Your task to perform on an android device: Find coffee shops on Maps Image 0: 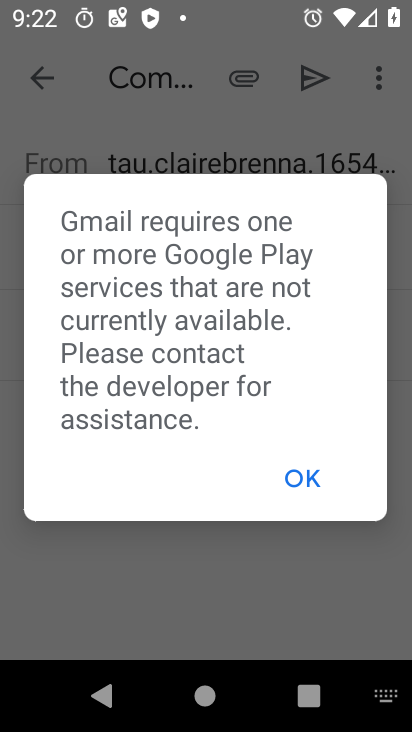
Step 0: press home button
Your task to perform on an android device: Find coffee shops on Maps Image 1: 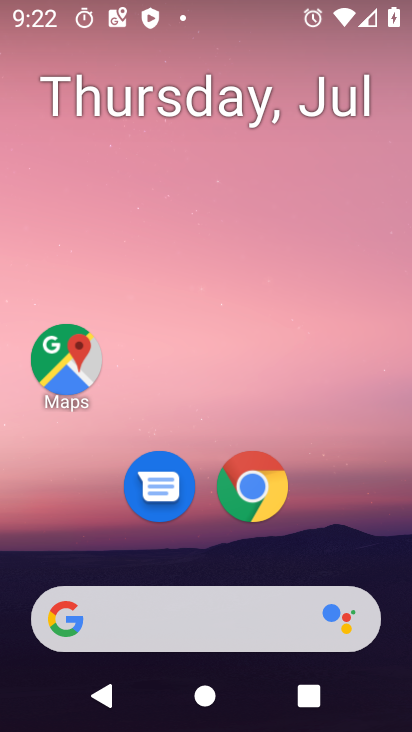
Step 1: click (76, 374)
Your task to perform on an android device: Find coffee shops on Maps Image 2: 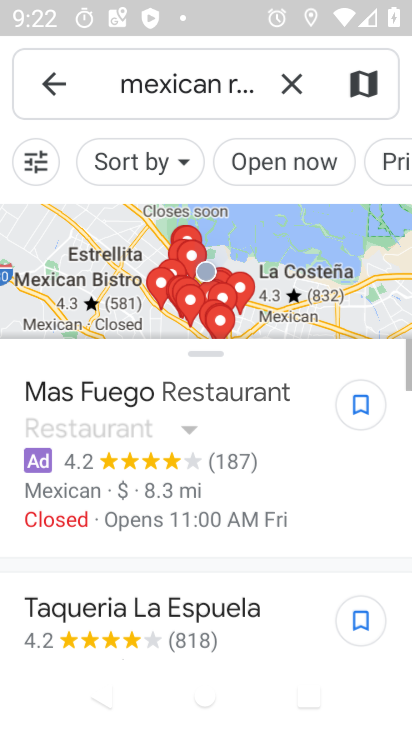
Step 2: click (299, 81)
Your task to perform on an android device: Find coffee shops on Maps Image 3: 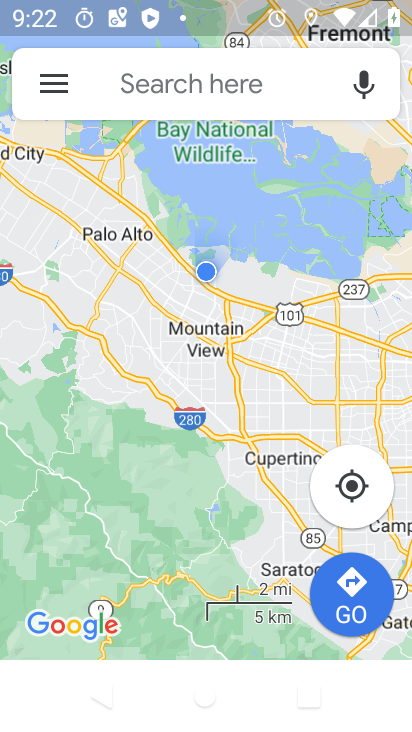
Step 3: click (177, 105)
Your task to perform on an android device: Find coffee shops on Maps Image 4: 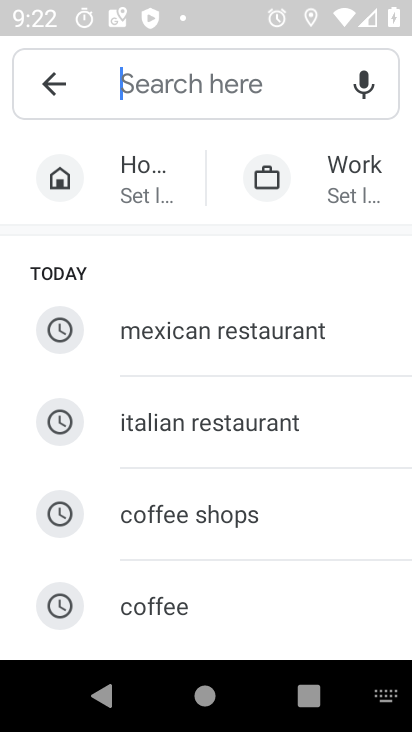
Step 4: click (184, 516)
Your task to perform on an android device: Find coffee shops on Maps Image 5: 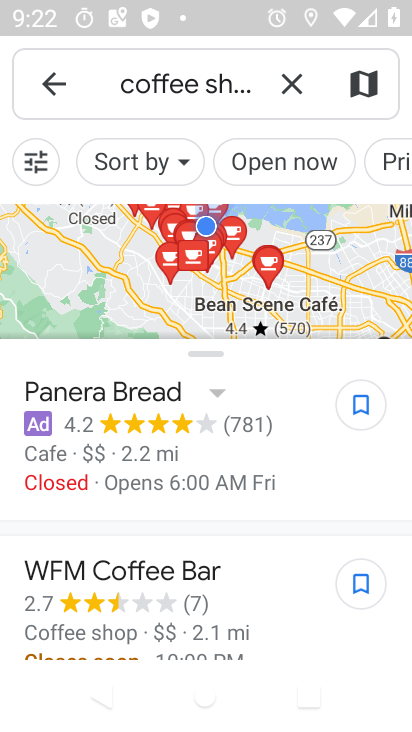
Step 5: task complete